Your task to perform on an android device: Search for bose soundlink on amazon, select the first entry, and add it to the cart. Image 0: 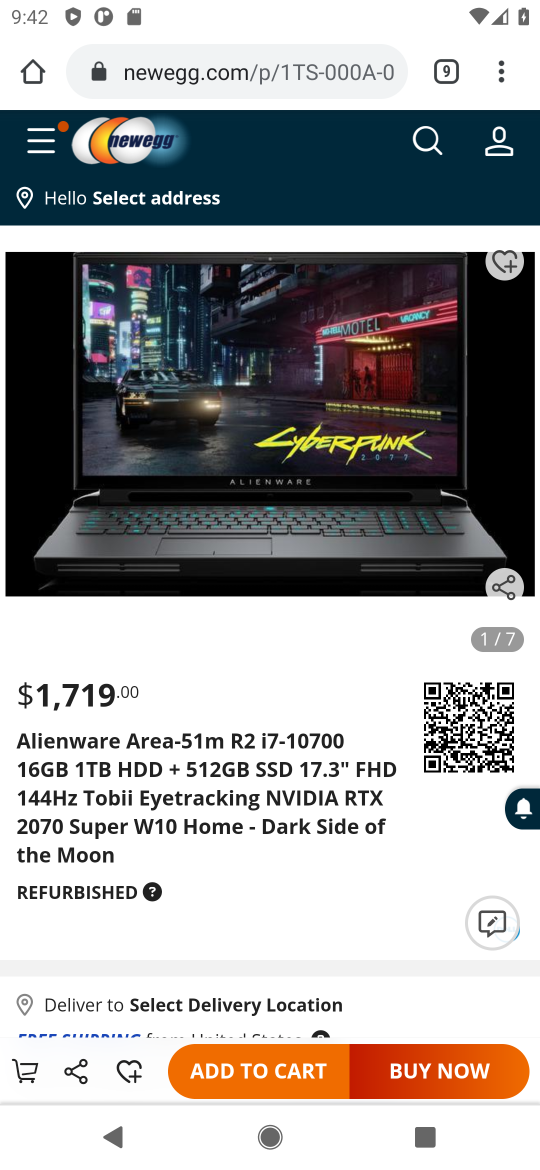
Step 0: task complete